Your task to perform on an android device: uninstall "Google News" Image 0: 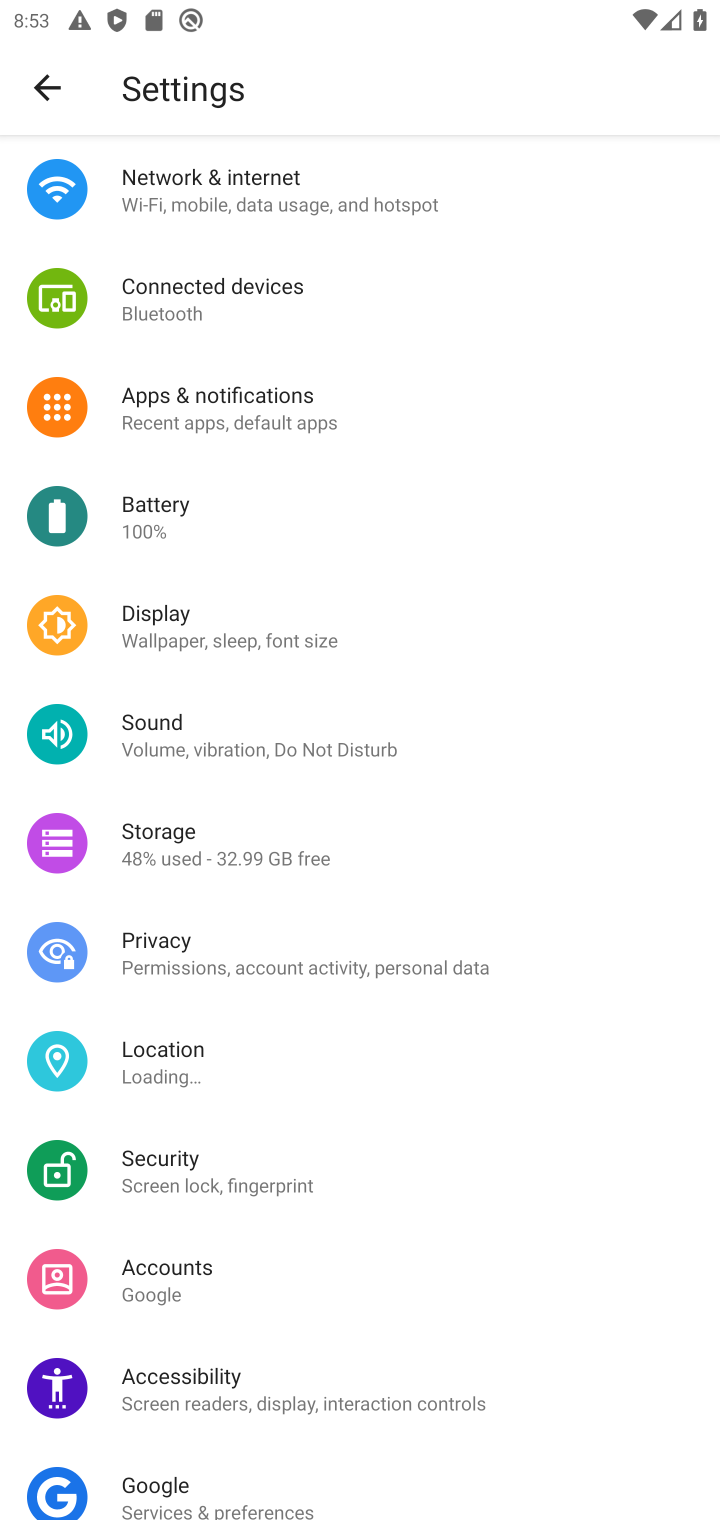
Step 0: press home button
Your task to perform on an android device: uninstall "Google News" Image 1: 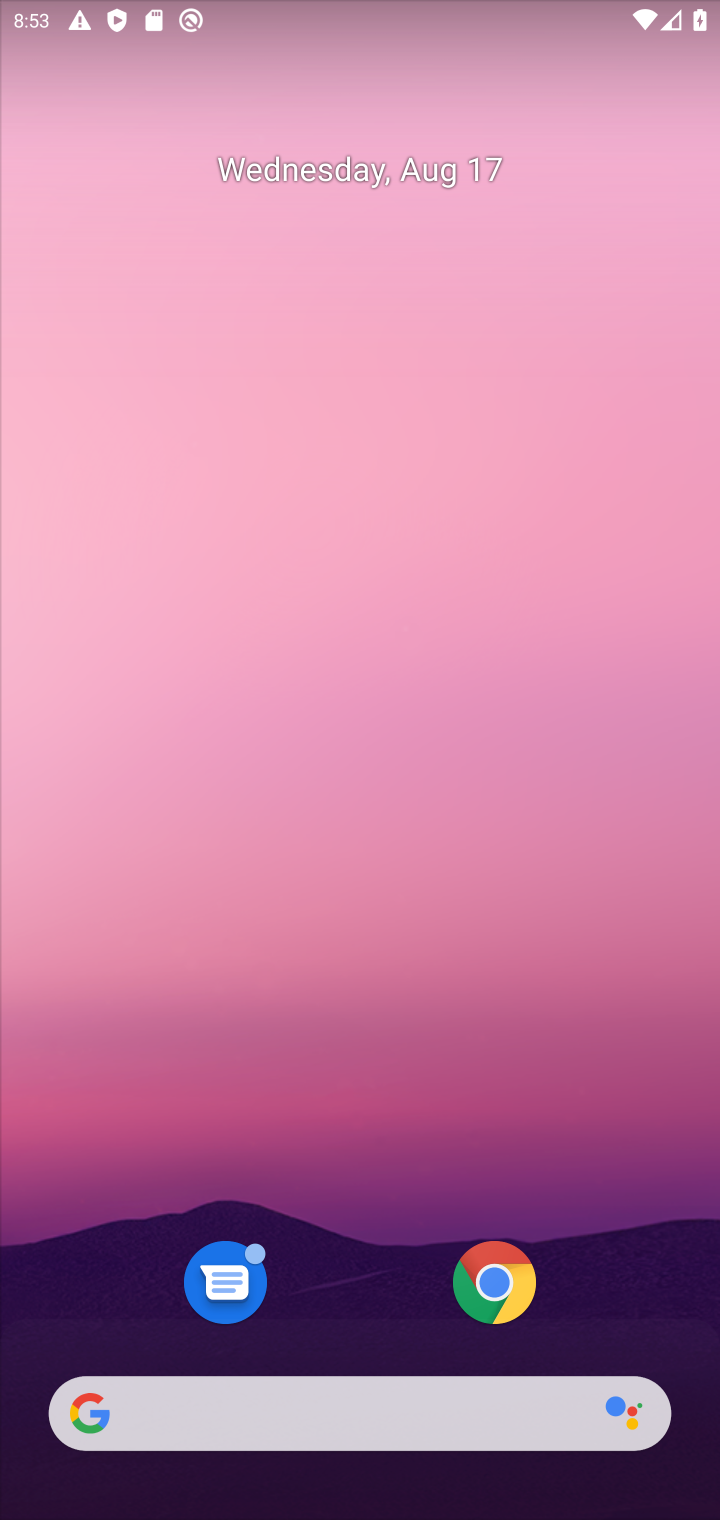
Step 1: drag from (257, 444) to (235, 251)
Your task to perform on an android device: uninstall "Google News" Image 2: 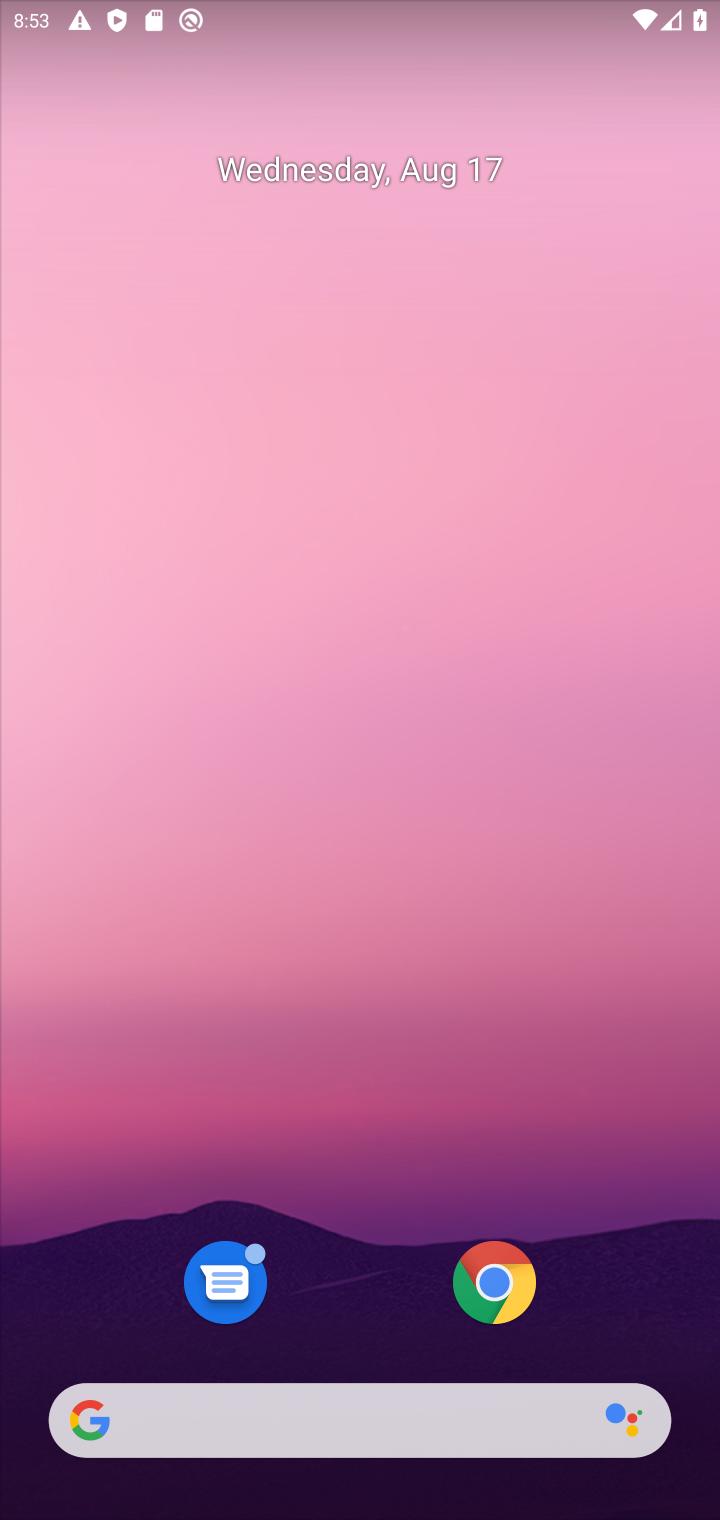
Step 2: drag from (345, 1359) to (289, 127)
Your task to perform on an android device: uninstall "Google News" Image 3: 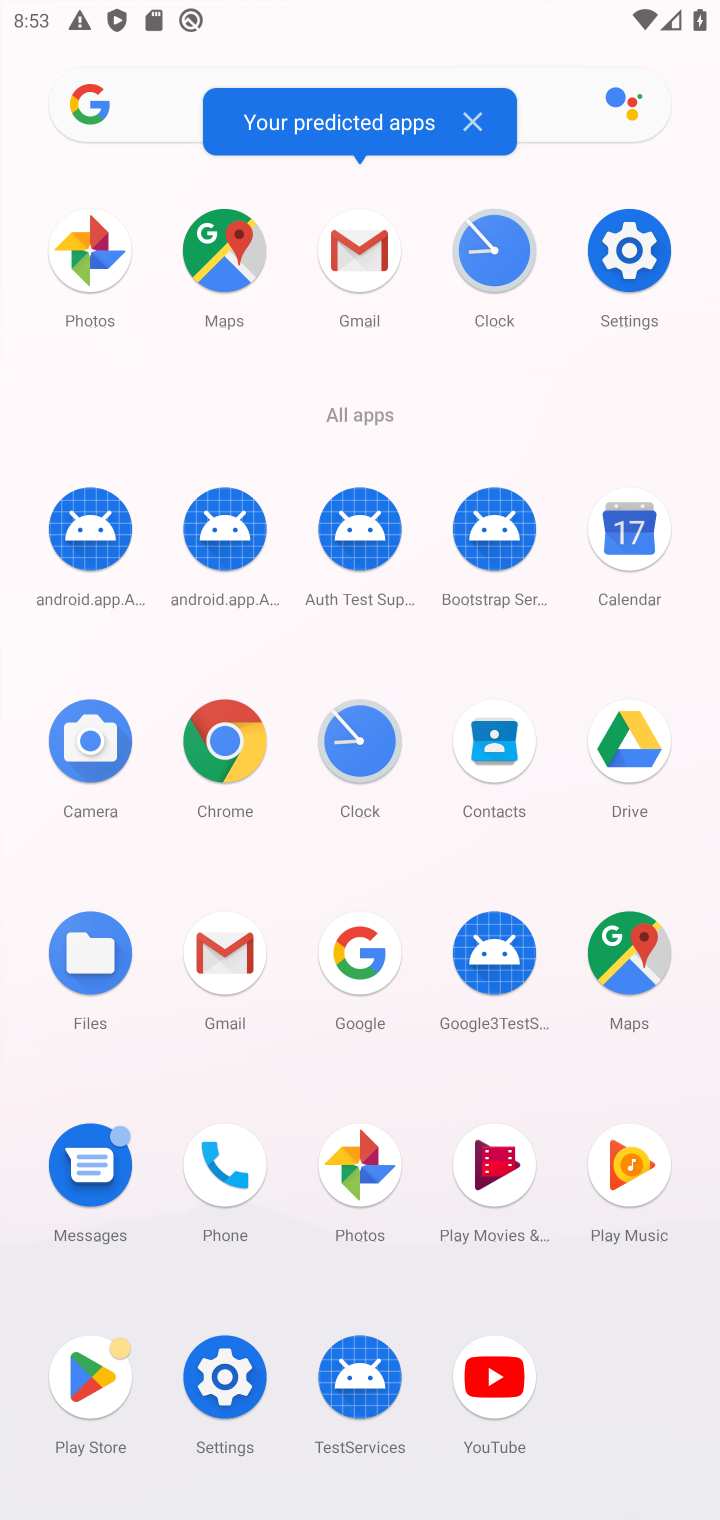
Step 3: click (82, 1358)
Your task to perform on an android device: uninstall "Google News" Image 4: 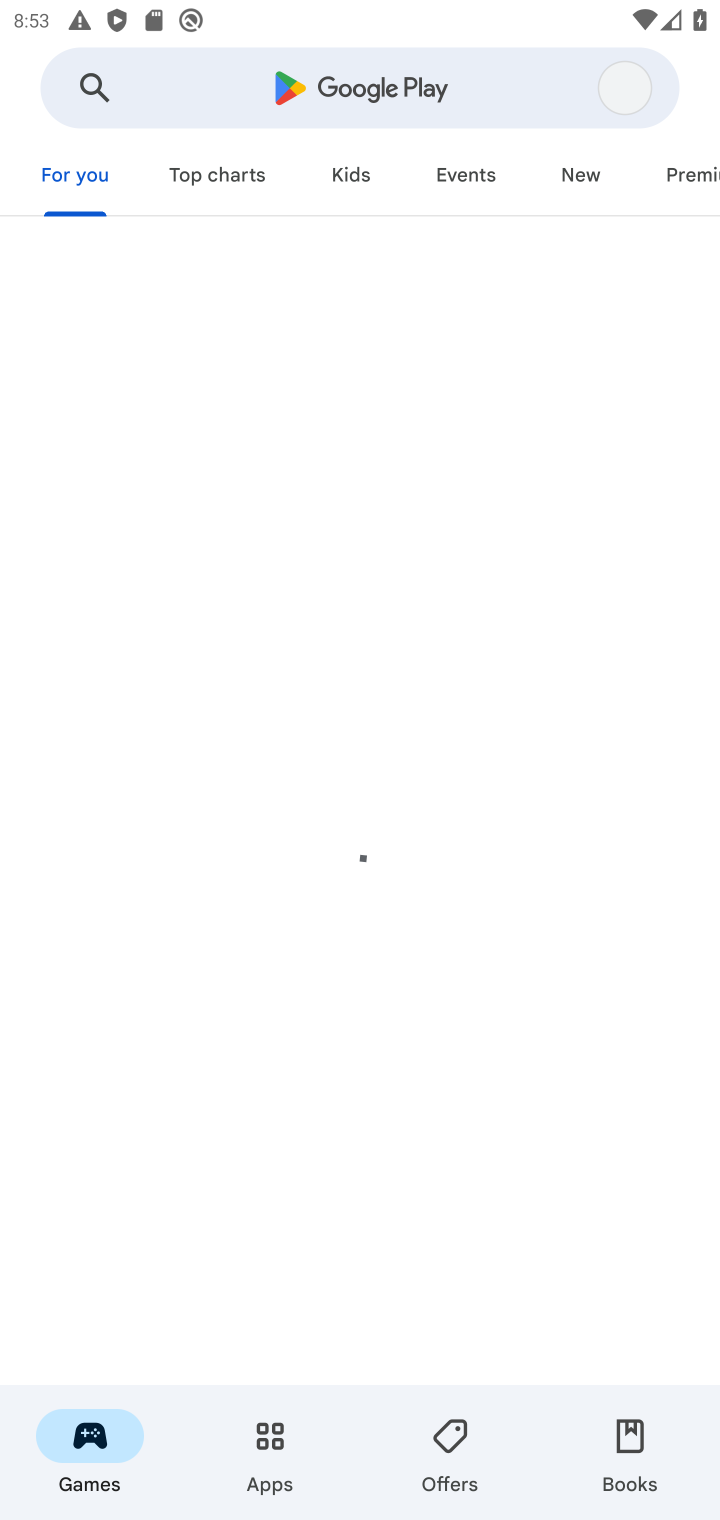
Step 4: click (371, 118)
Your task to perform on an android device: uninstall "Google News" Image 5: 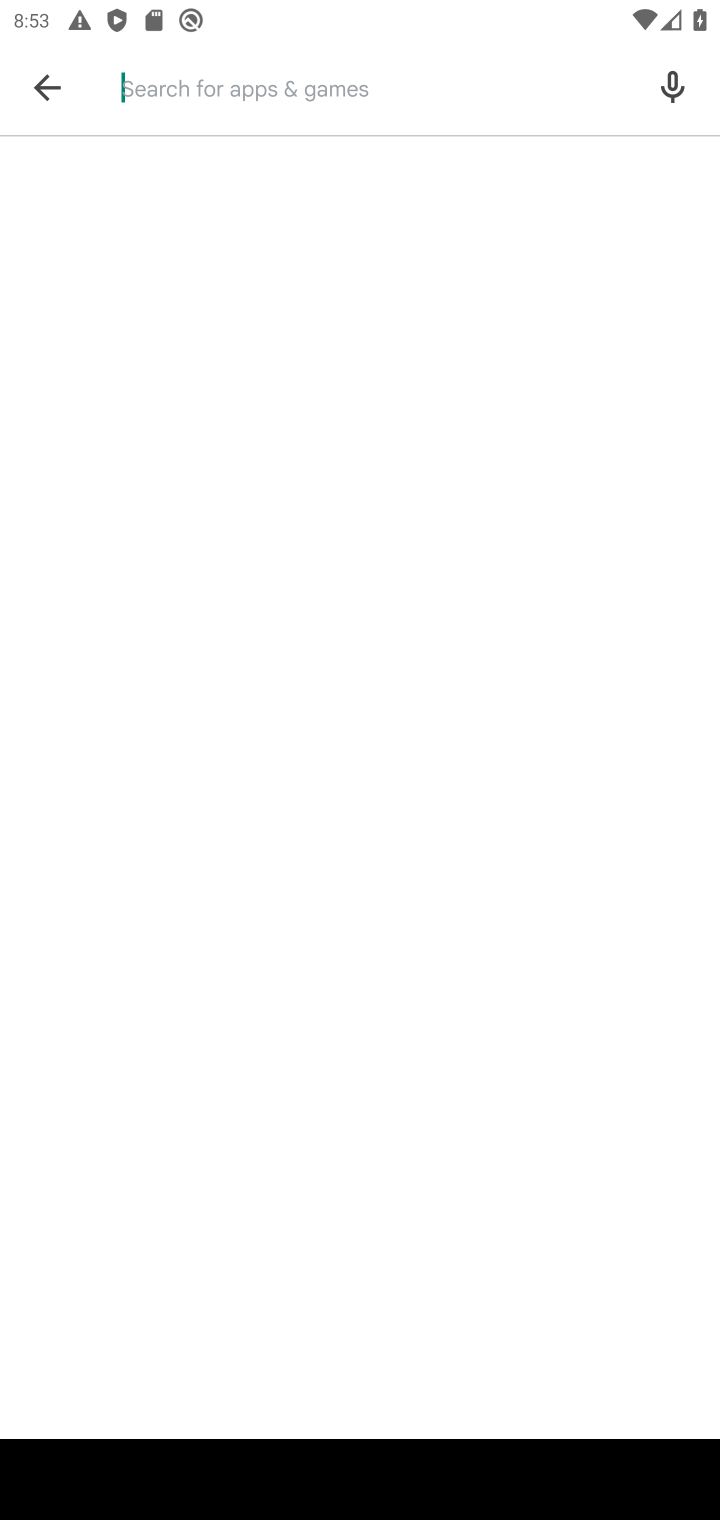
Step 5: type "Google News"
Your task to perform on an android device: uninstall "Google News" Image 6: 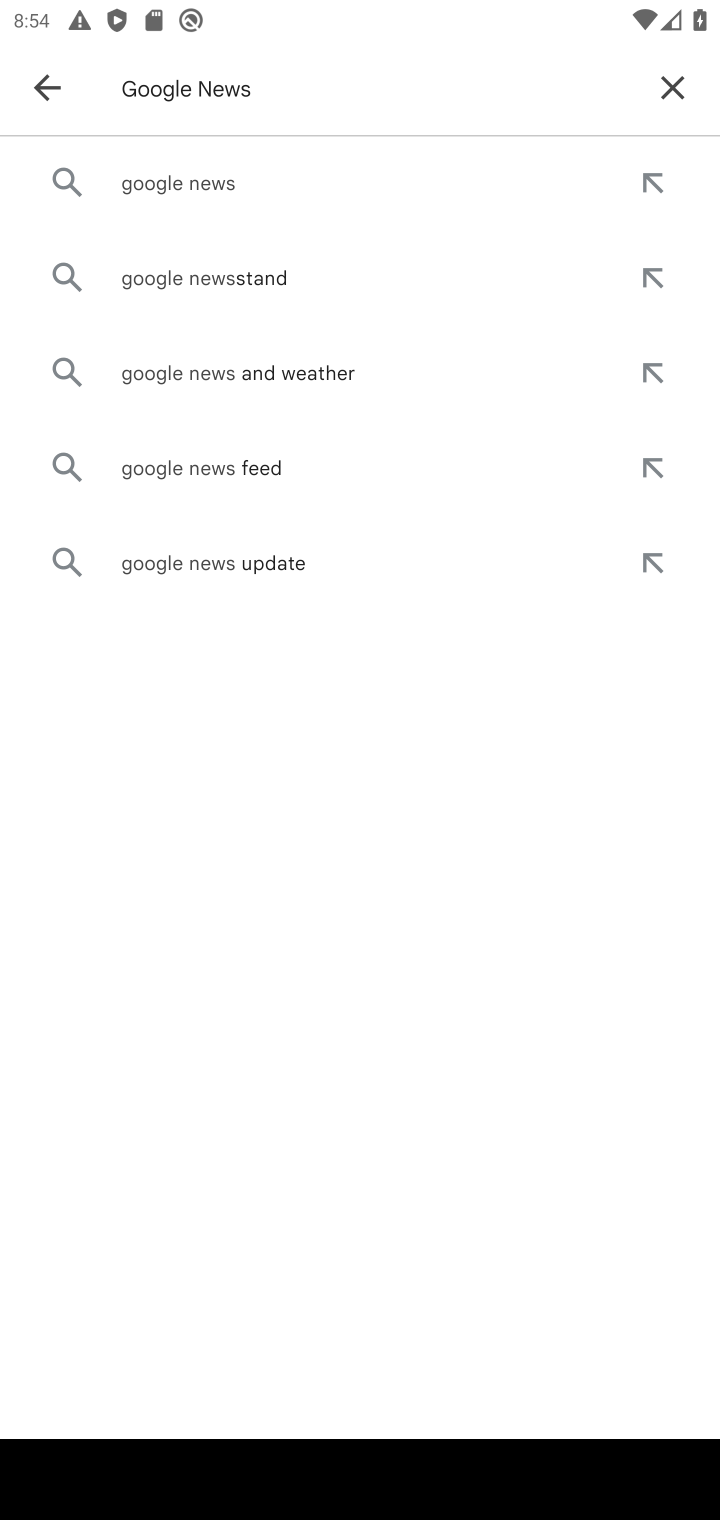
Step 6: click (162, 168)
Your task to perform on an android device: uninstall "Google News" Image 7: 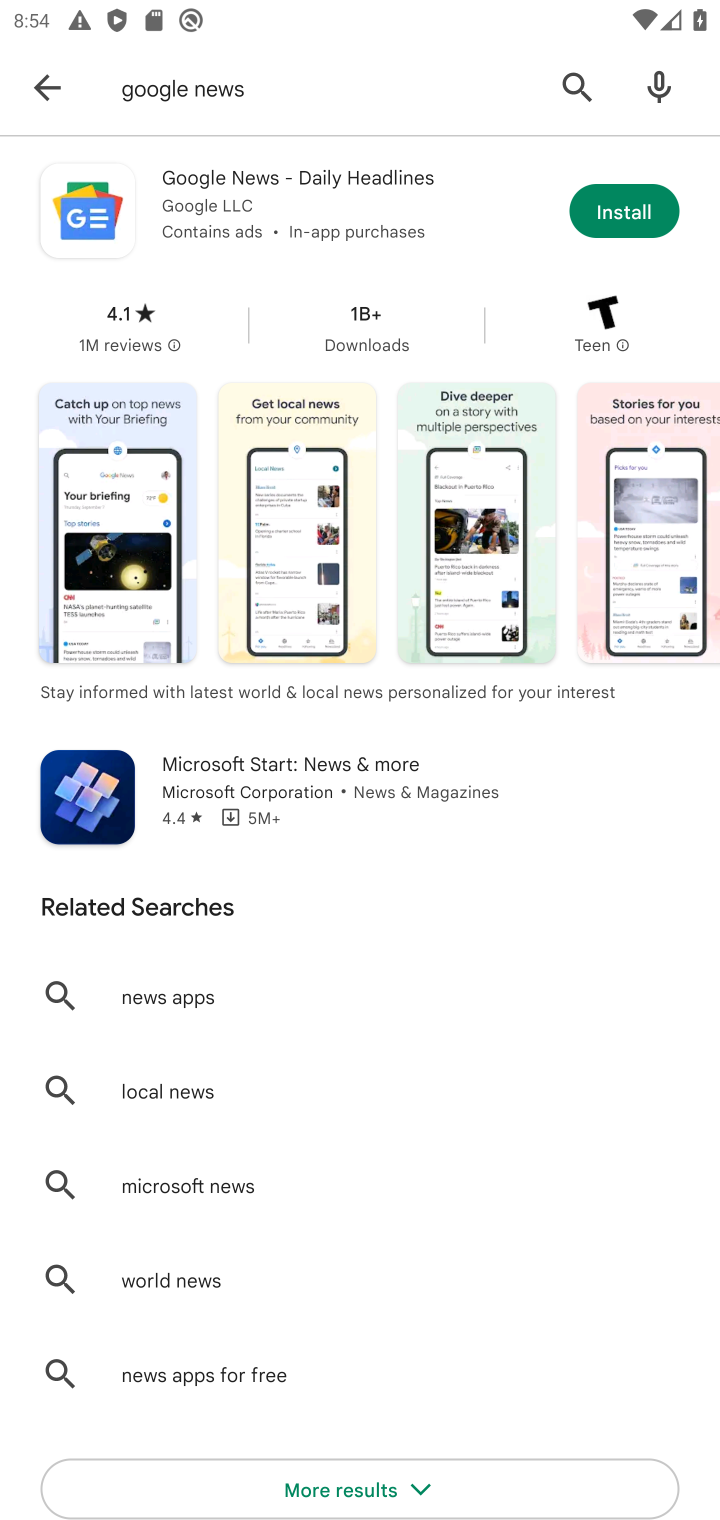
Step 7: click (345, 224)
Your task to perform on an android device: uninstall "Google News" Image 8: 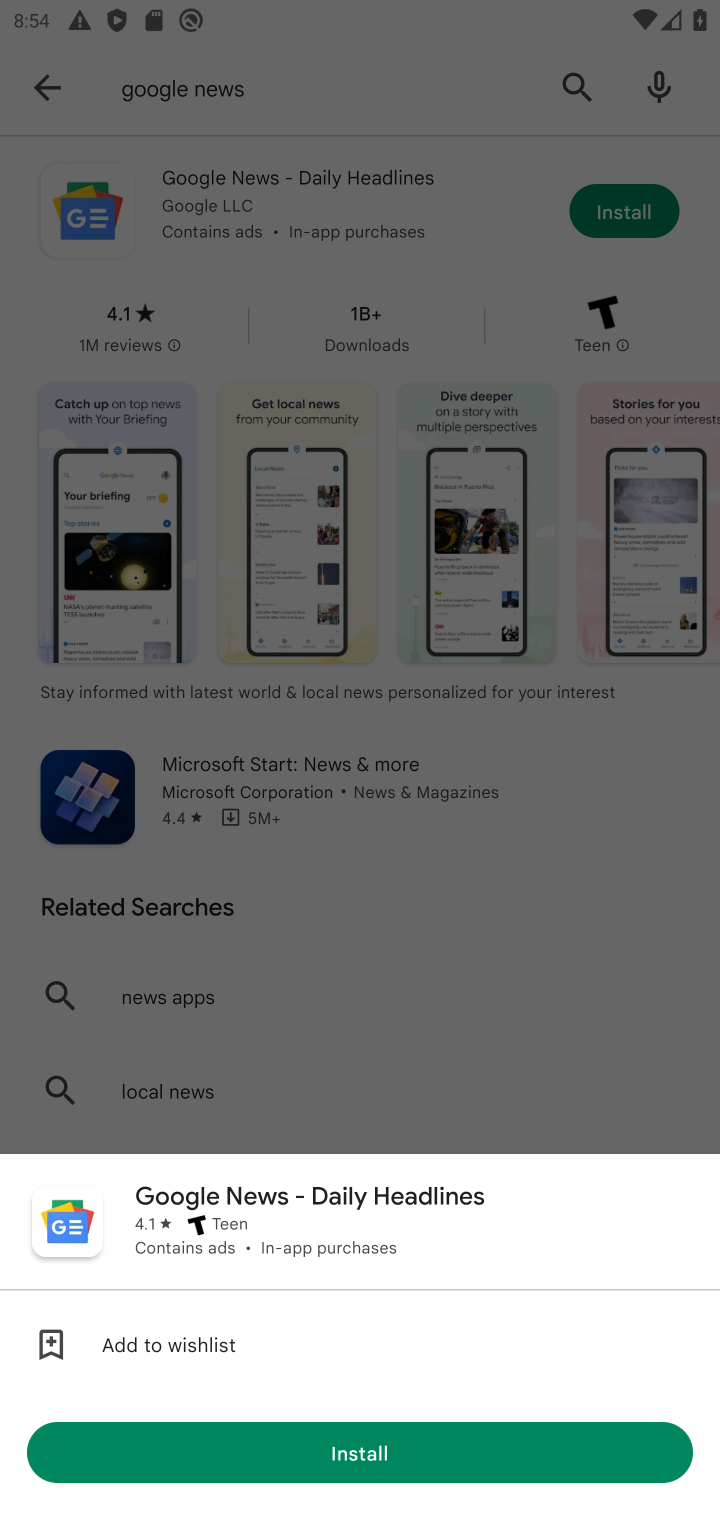
Step 8: task complete